Your task to perform on an android device: Go to wifi settings Image 0: 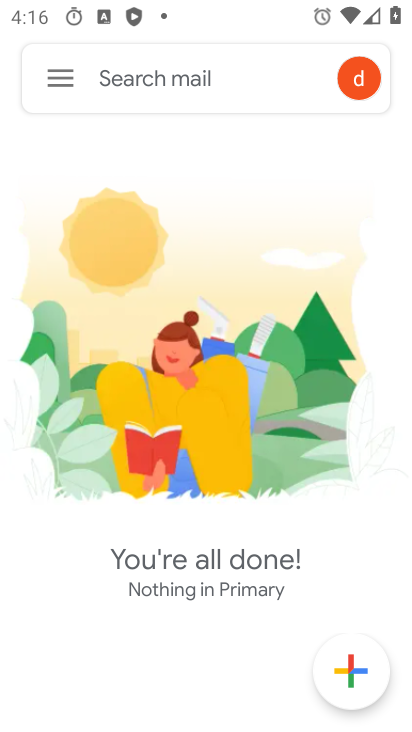
Step 0: press home button
Your task to perform on an android device: Go to wifi settings Image 1: 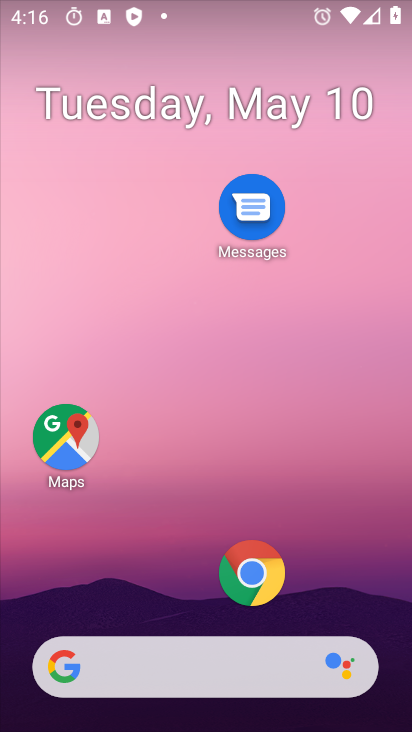
Step 1: drag from (191, 608) to (157, 160)
Your task to perform on an android device: Go to wifi settings Image 2: 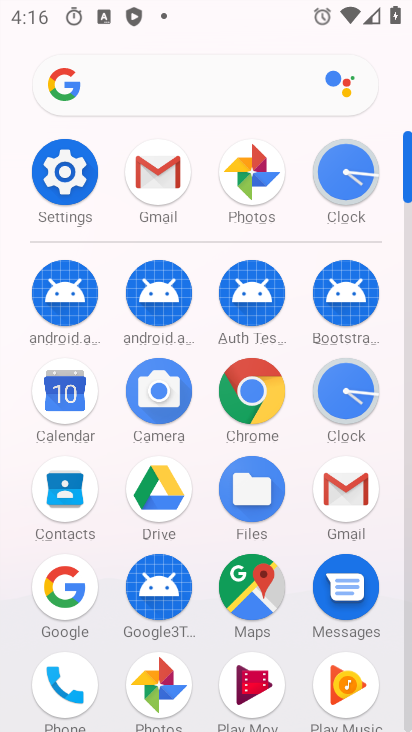
Step 2: click (60, 197)
Your task to perform on an android device: Go to wifi settings Image 3: 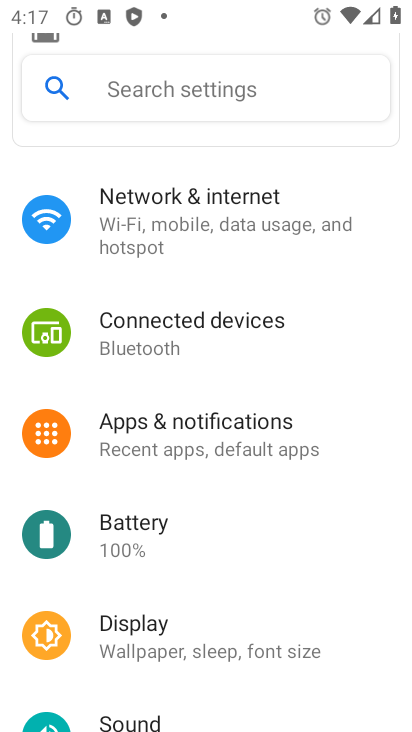
Step 3: click (202, 213)
Your task to perform on an android device: Go to wifi settings Image 4: 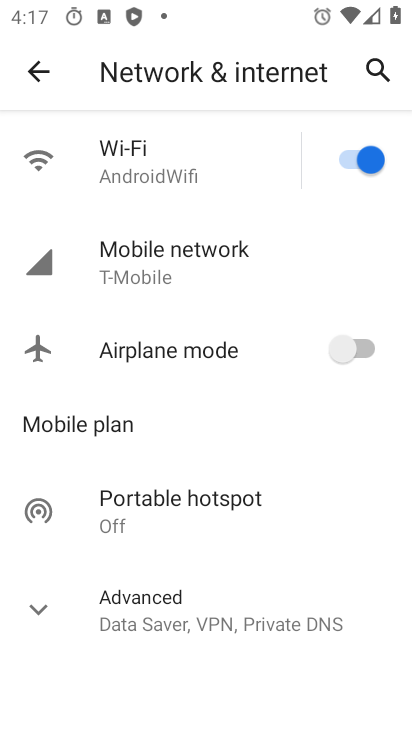
Step 4: click (156, 186)
Your task to perform on an android device: Go to wifi settings Image 5: 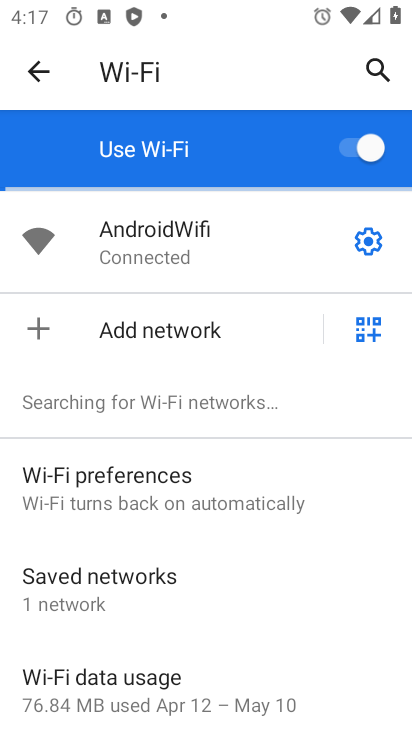
Step 5: task complete